Your task to perform on an android device: Open Amazon Image 0: 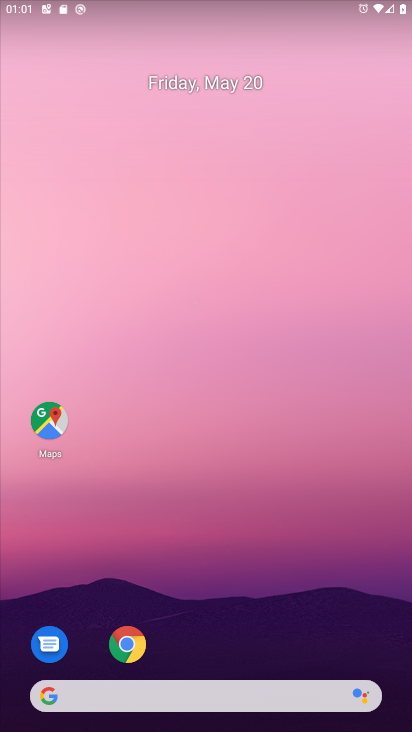
Step 0: click (125, 650)
Your task to perform on an android device: Open Amazon Image 1: 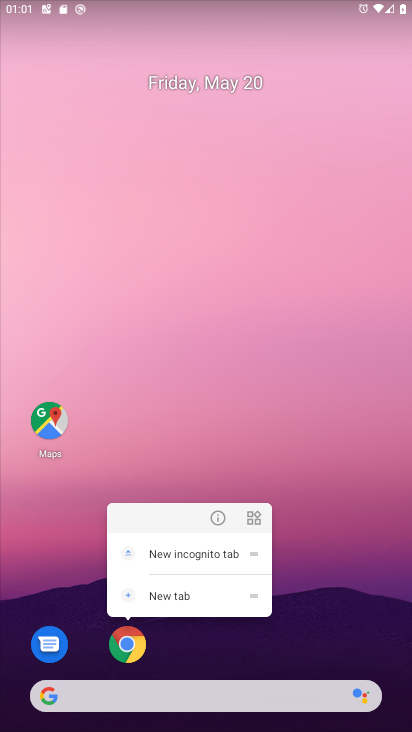
Step 1: click (125, 647)
Your task to perform on an android device: Open Amazon Image 2: 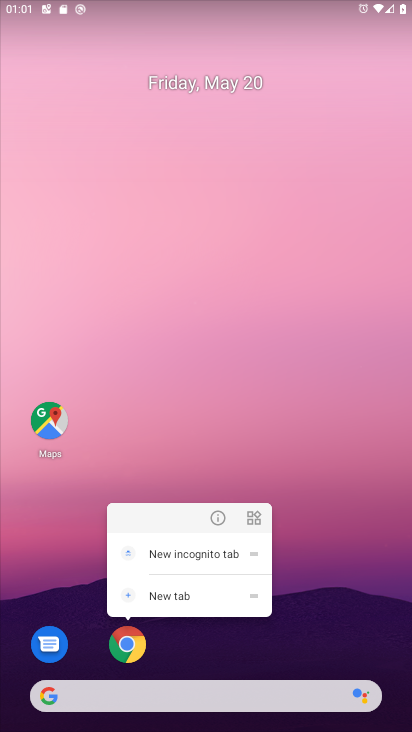
Step 2: click (133, 648)
Your task to perform on an android device: Open Amazon Image 3: 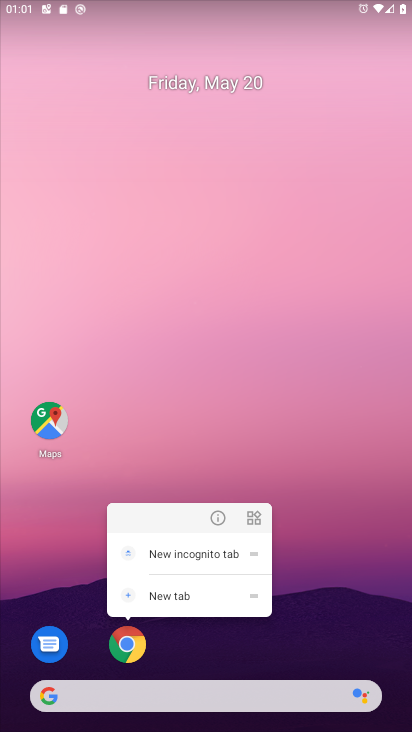
Step 3: click (130, 657)
Your task to perform on an android device: Open Amazon Image 4: 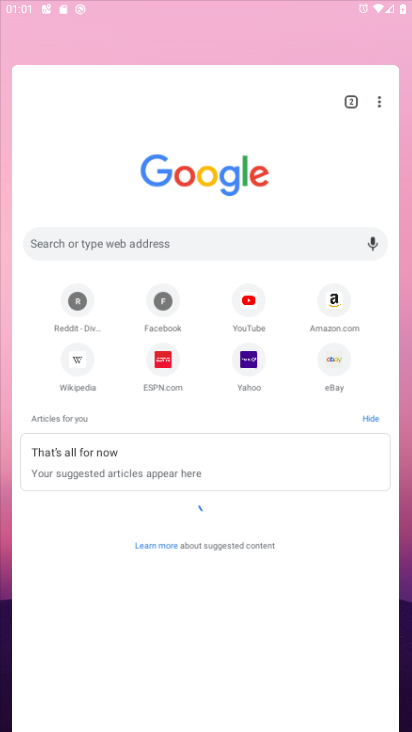
Step 4: click (124, 646)
Your task to perform on an android device: Open Amazon Image 5: 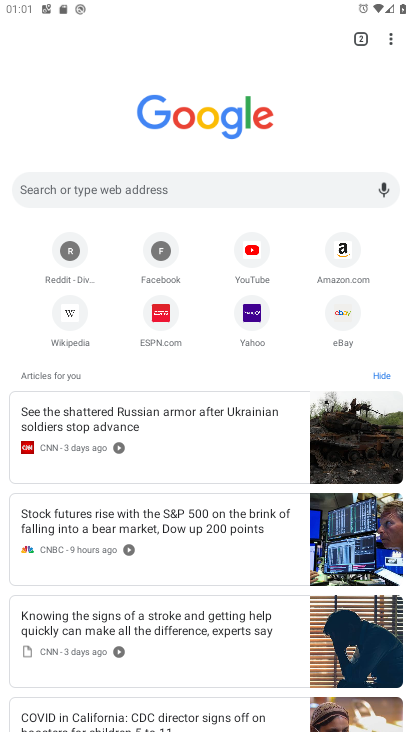
Step 5: click (338, 263)
Your task to perform on an android device: Open Amazon Image 6: 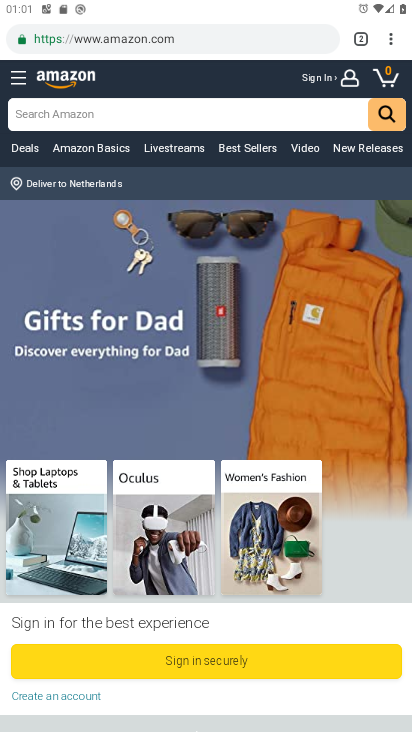
Step 6: task complete